Your task to perform on an android device: Go to Google maps Image 0: 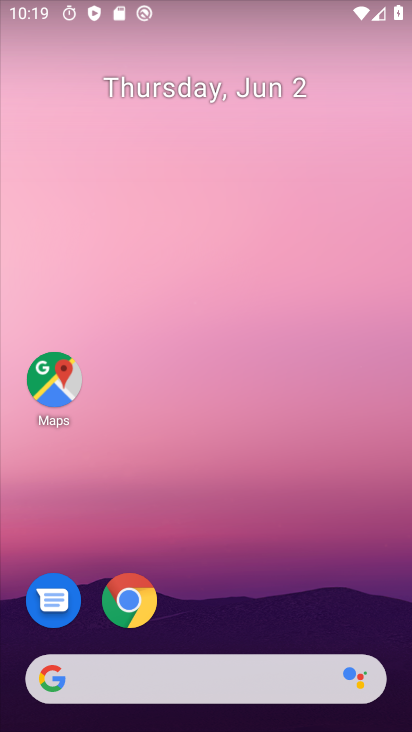
Step 0: drag from (209, 608) to (206, 110)
Your task to perform on an android device: Go to Google maps Image 1: 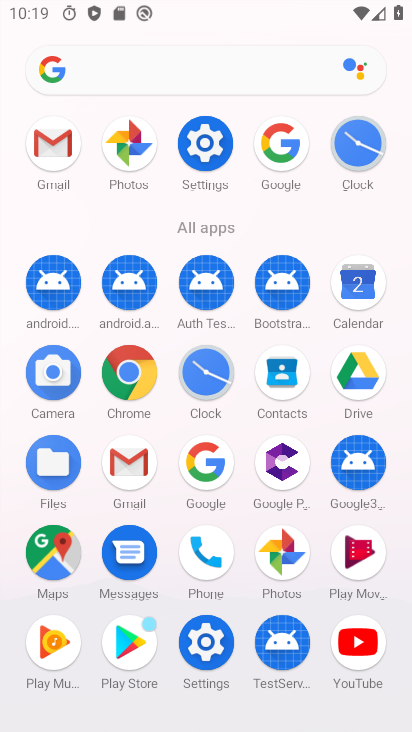
Step 1: click (52, 558)
Your task to perform on an android device: Go to Google maps Image 2: 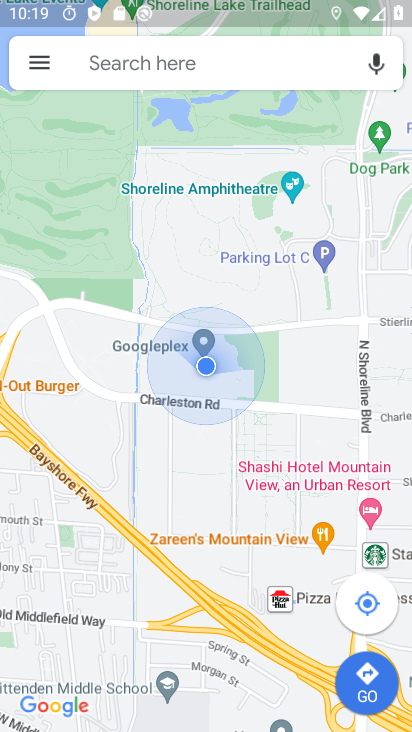
Step 2: task complete